Your task to perform on an android device: When is my next appointment? Image 0: 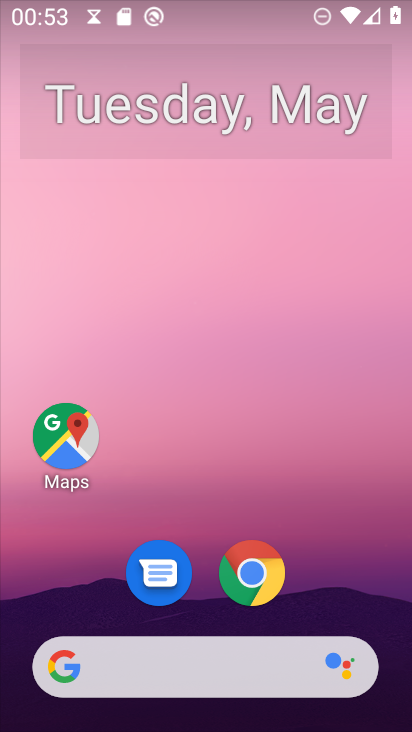
Step 0: drag from (328, 490) to (238, 47)
Your task to perform on an android device: When is my next appointment? Image 1: 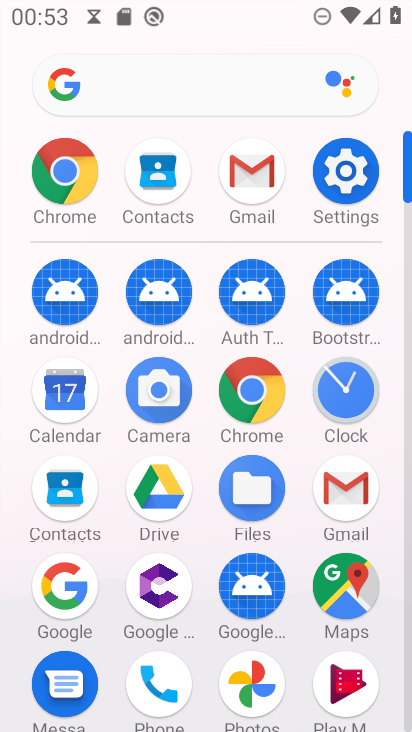
Step 1: click (59, 391)
Your task to perform on an android device: When is my next appointment? Image 2: 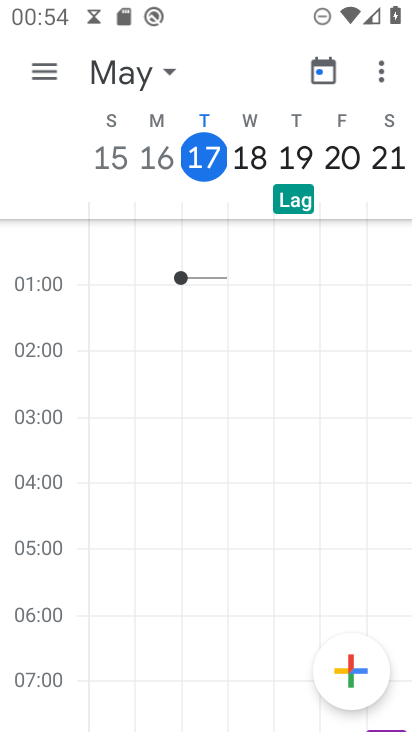
Step 2: task complete